Your task to perform on an android device: Check the settings for the Google Chrome app Image 0: 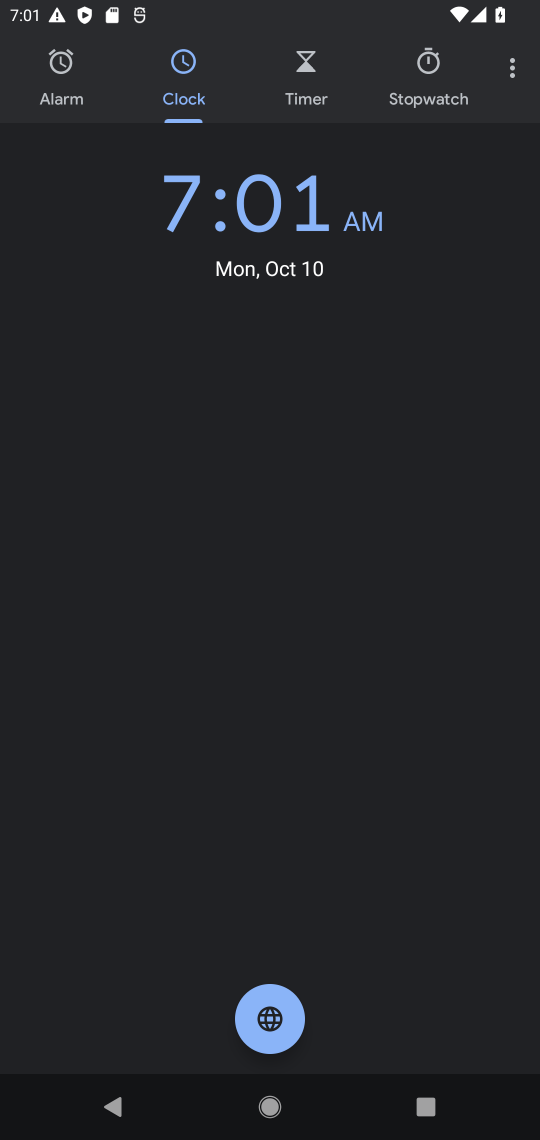
Step 0: press home button
Your task to perform on an android device: Check the settings for the Google Chrome app Image 1: 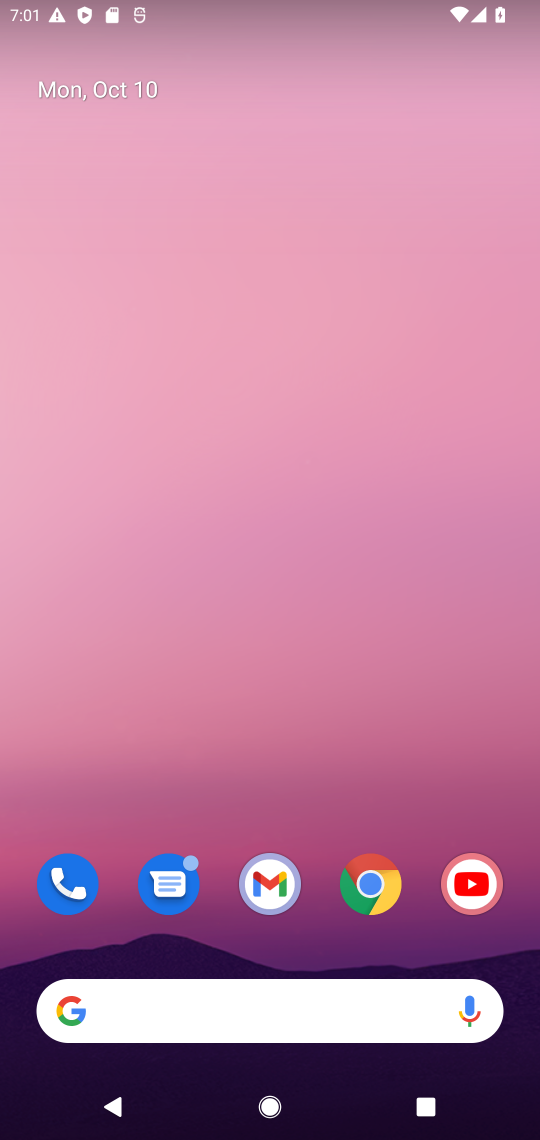
Step 1: click (381, 886)
Your task to perform on an android device: Check the settings for the Google Chrome app Image 2: 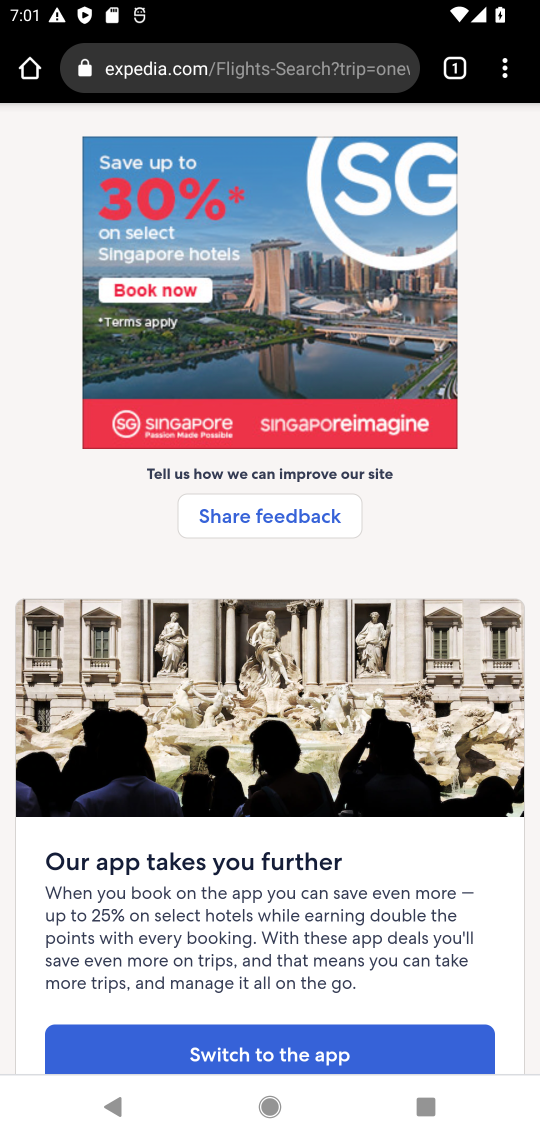
Step 2: drag from (451, 263) to (439, 954)
Your task to perform on an android device: Check the settings for the Google Chrome app Image 3: 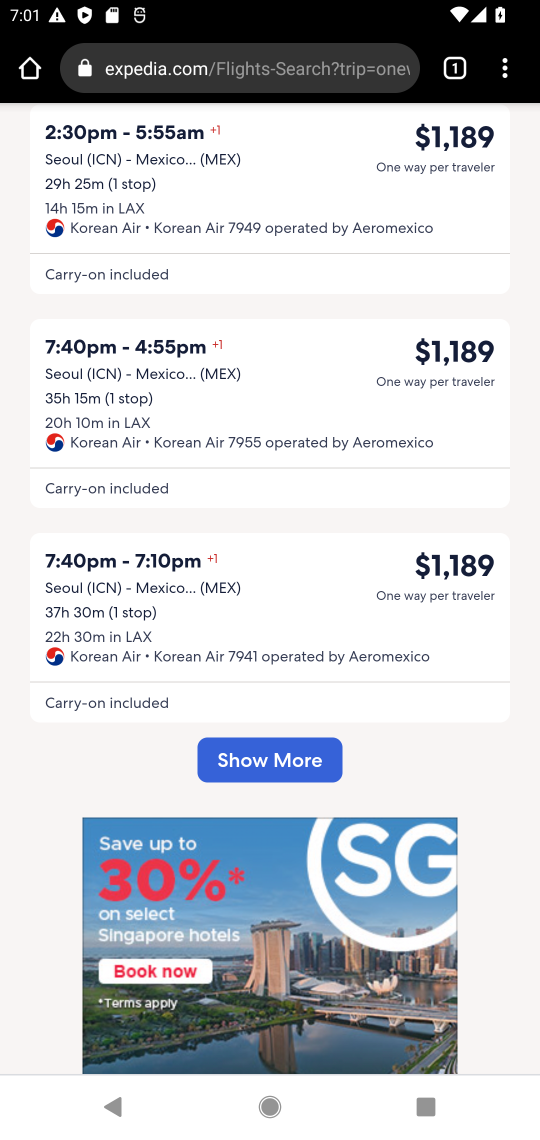
Step 3: click (501, 68)
Your task to perform on an android device: Check the settings for the Google Chrome app Image 4: 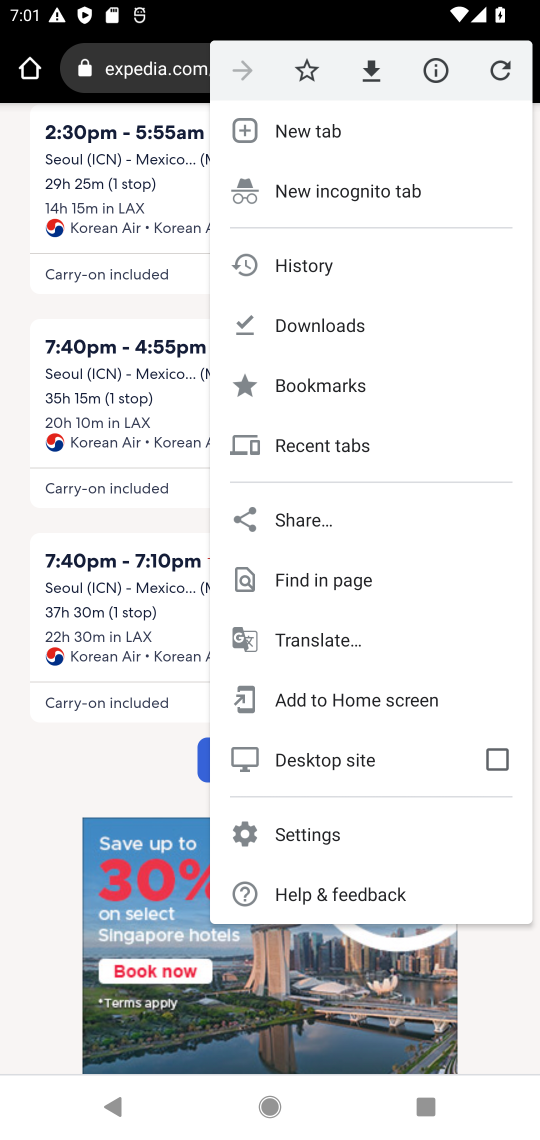
Step 4: click (289, 825)
Your task to perform on an android device: Check the settings for the Google Chrome app Image 5: 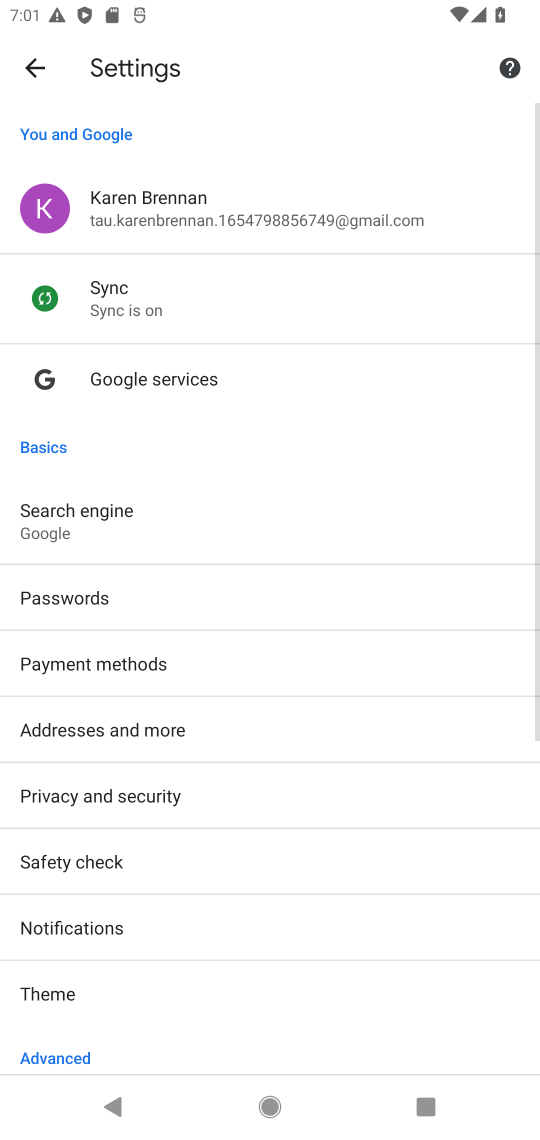
Step 5: drag from (287, 911) to (372, 234)
Your task to perform on an android device: Check the settings for the Google Chrome app Image 6: 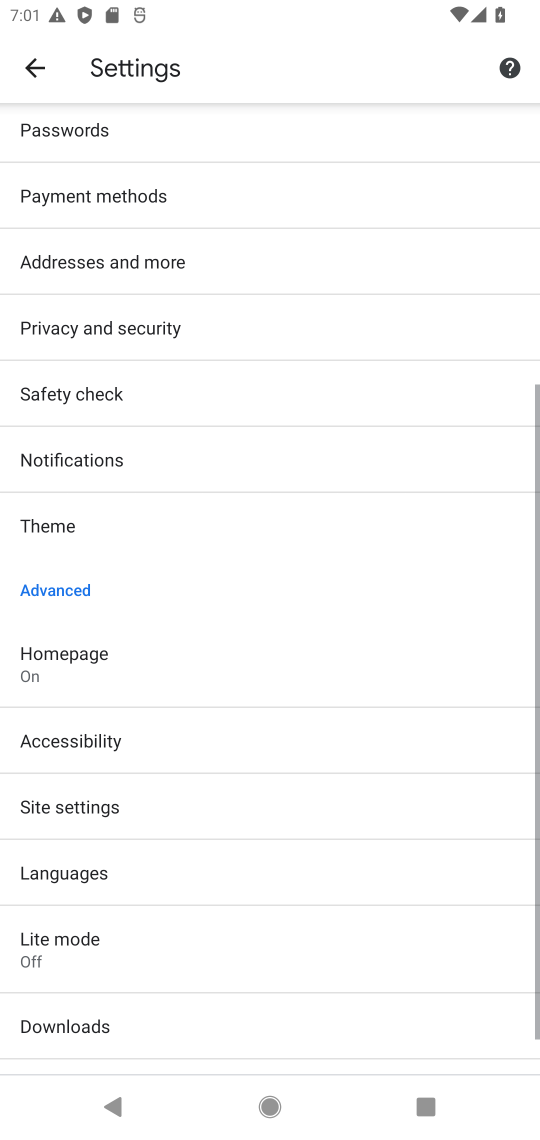
Step 6: drag from (319, 592) to (316, 271)
Your task to perform on an android device: Check the settings for the Google Chrome app Image 7: 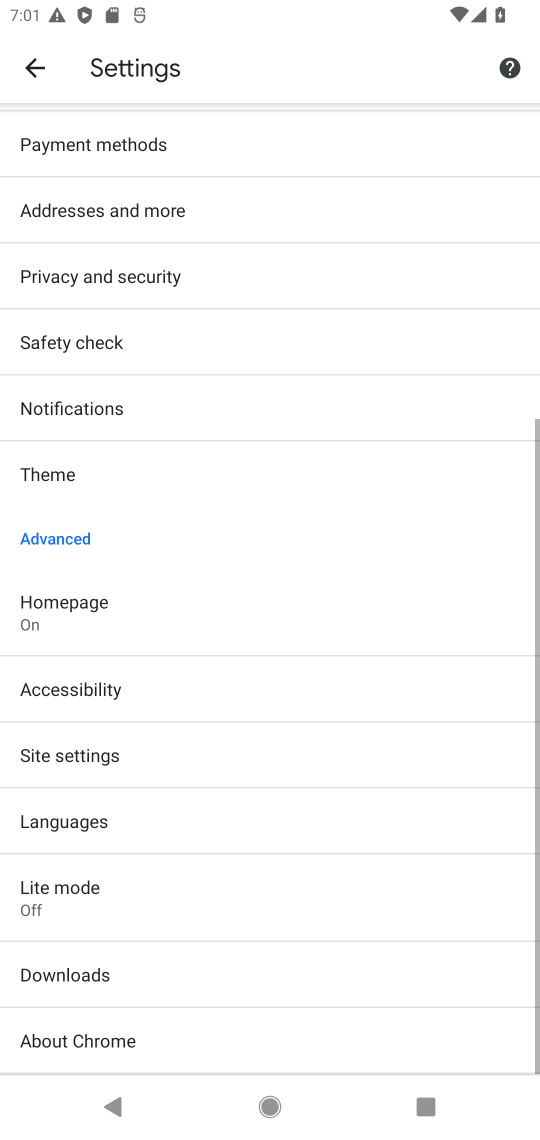
Step 7: drag from (268, 507) to (348, 152)
Your task to perform on an android device: Check the settings for the Google Chrome app Image 8: 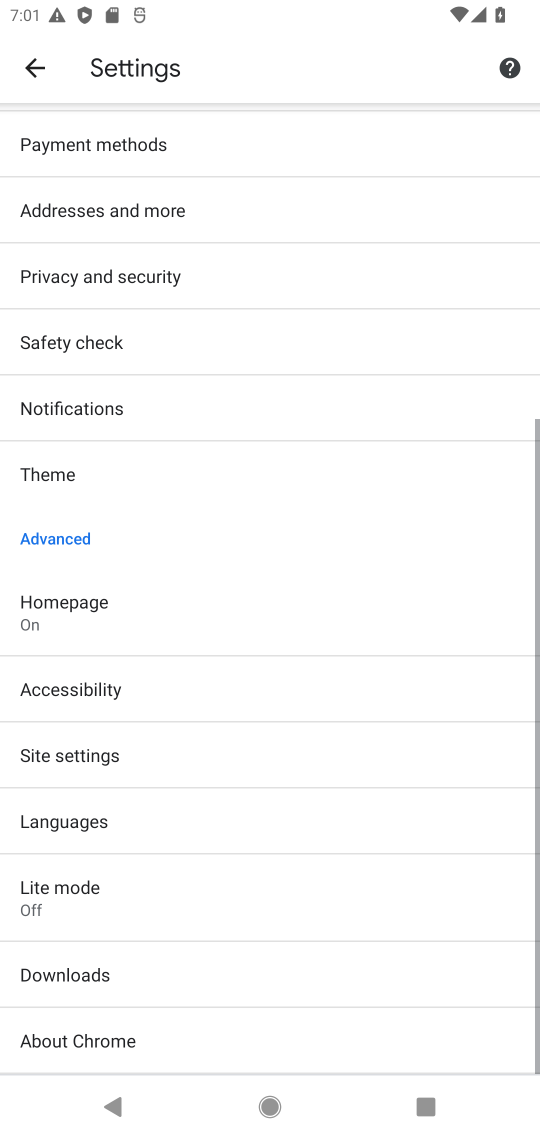
Step 8: drag from (278, 649) to (329, 286)
Your task to perform on an android device: Check the settings for the Google Chrome app Image 9: 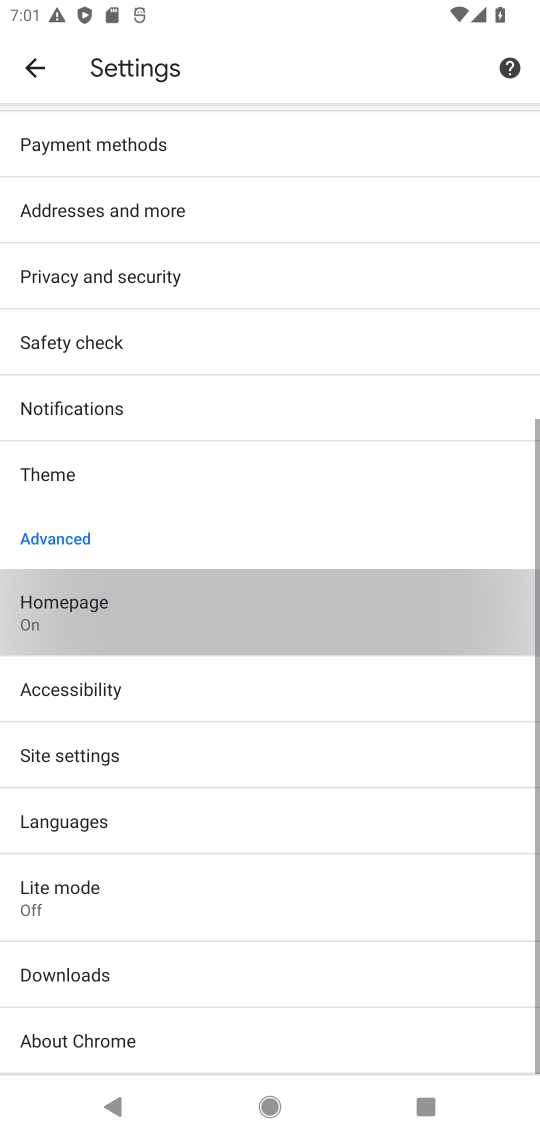
Step 9: drag from (310, 612) to (372, 194)
Your task to perform on an android device: Check the settings for the Google Chrome app Image 10: 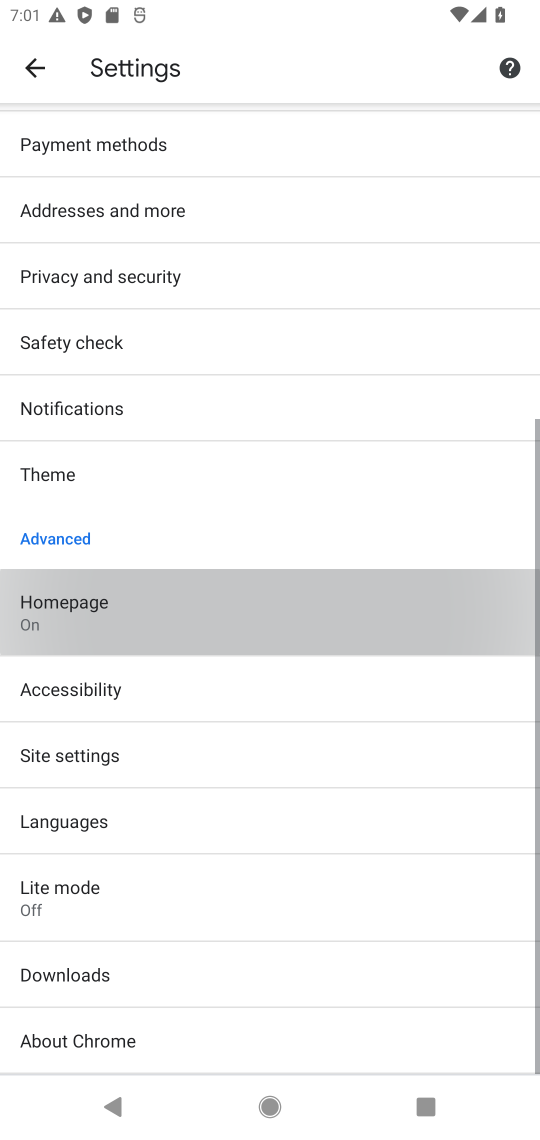
Step 10: drag from (308, 666) to (351, 317)
Your task to perform on an android device: Check the settings for the Google Chrome app Image 11: 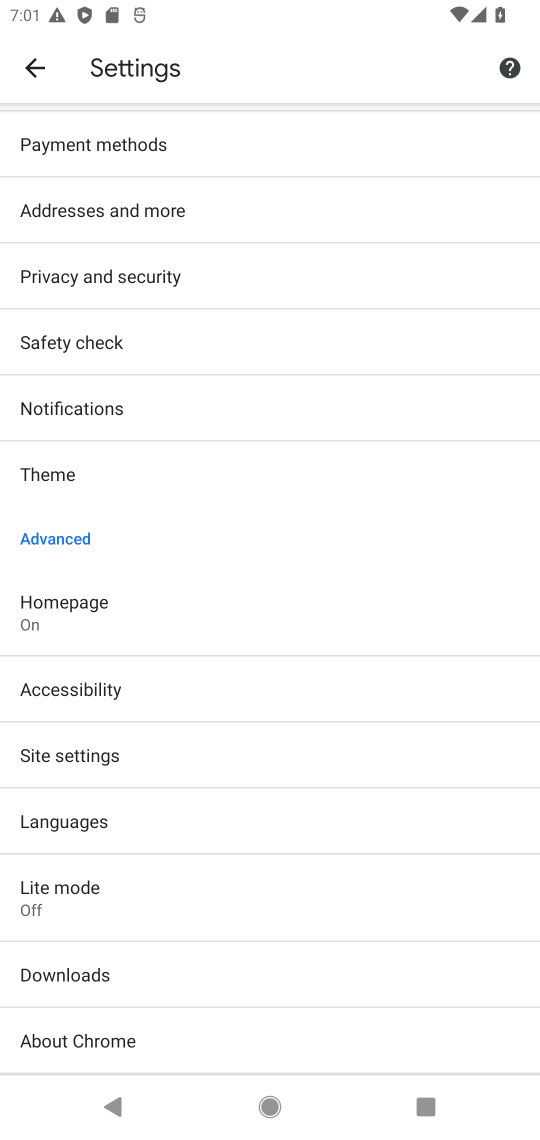
Step 11: click (147, 1031)
Your task to perform on an android device: Check the settings for the Google Chrome app Image 12: 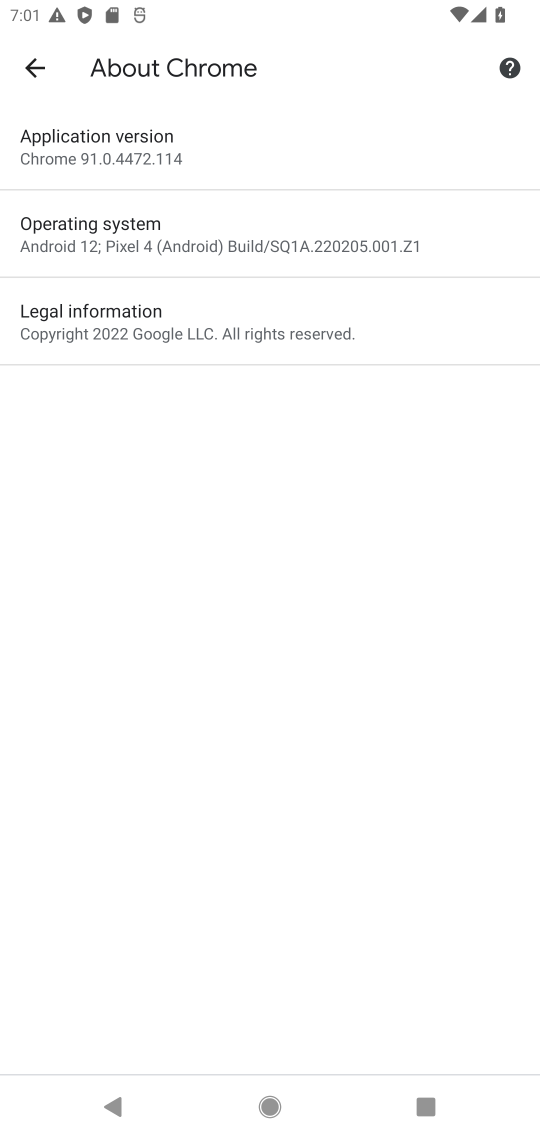
Step 12: click (19, 77)
Your task to perform on an android device: Check the settings for the Google Chrome app Image 13: 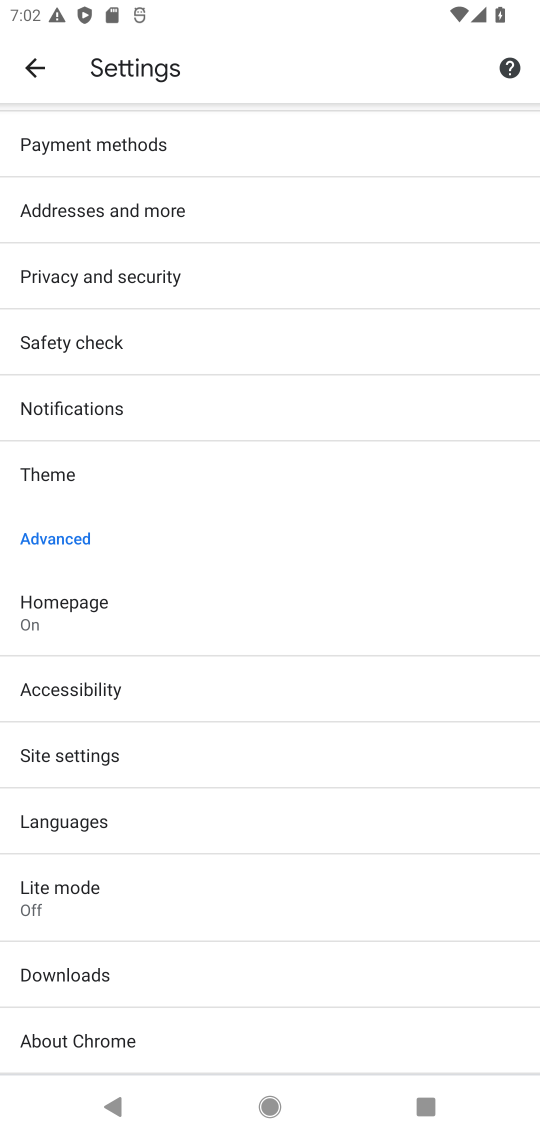
Step 13: click (106, 958)
Your task to perform on an android device: Check the settings for the Google Chrome app Image 14: 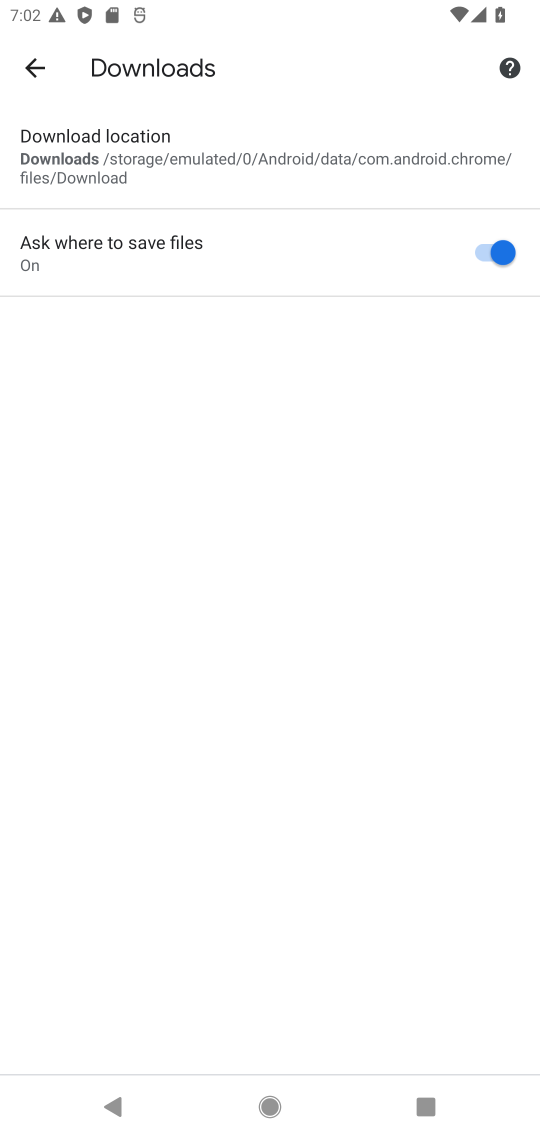
Step 14: click (23, 72)
Your task to perform on an android device: Check the settings for the Google Chrome app Image 15: 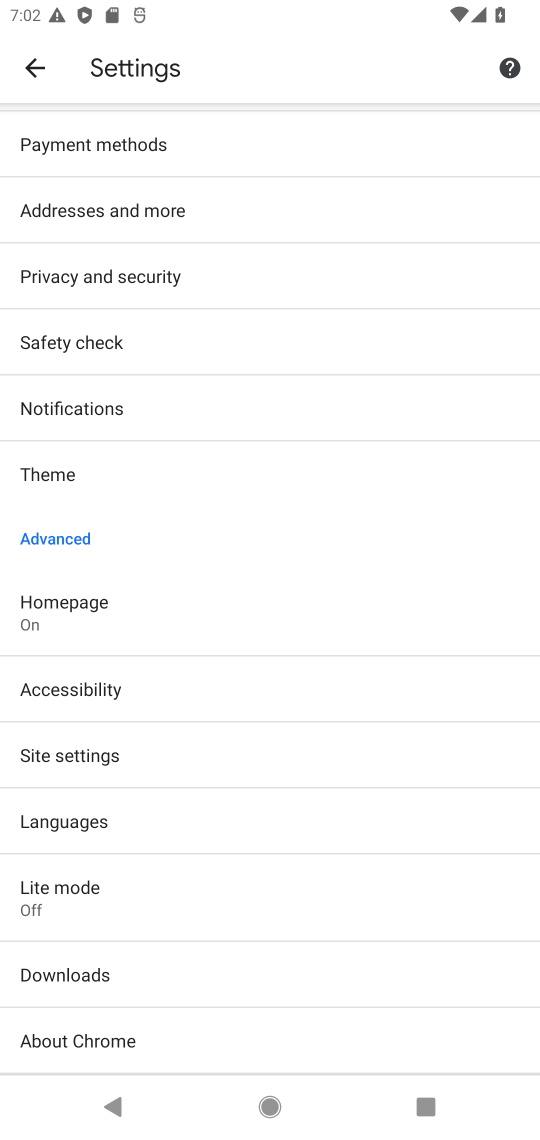
Step 15: click (68, 160)
Your task to perform on an android device: Check the settings for the Google Chrome app Image 16: 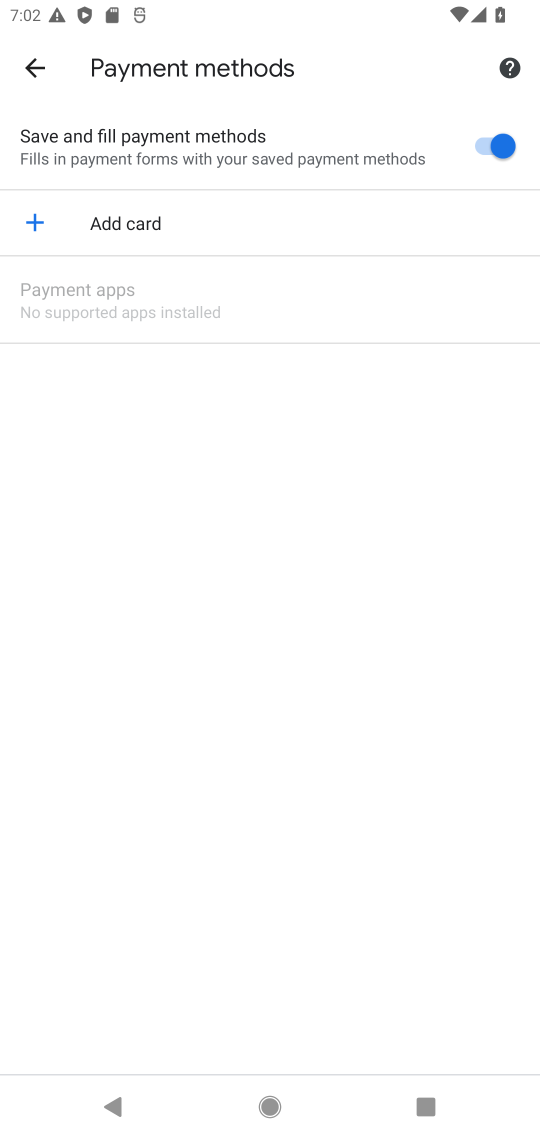
Step 16: click (29, 69)
Your task to perform on an android device: Check the settings for the Google Chrome app Image 17: 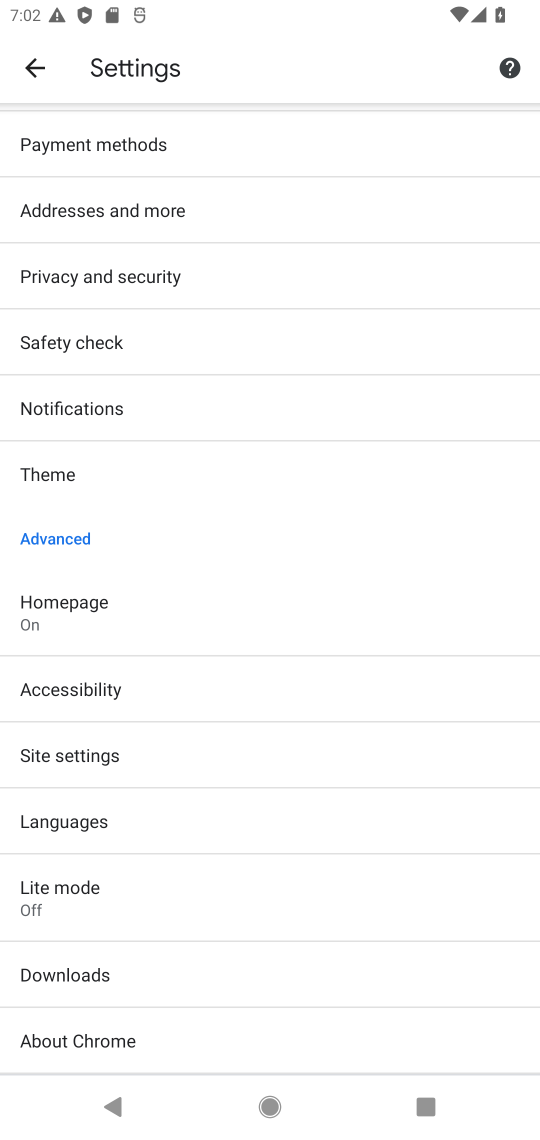
Step 17: click (124, 267)
Your task to perform on an android device: Check the settings for the Google Chrome app Image 18: 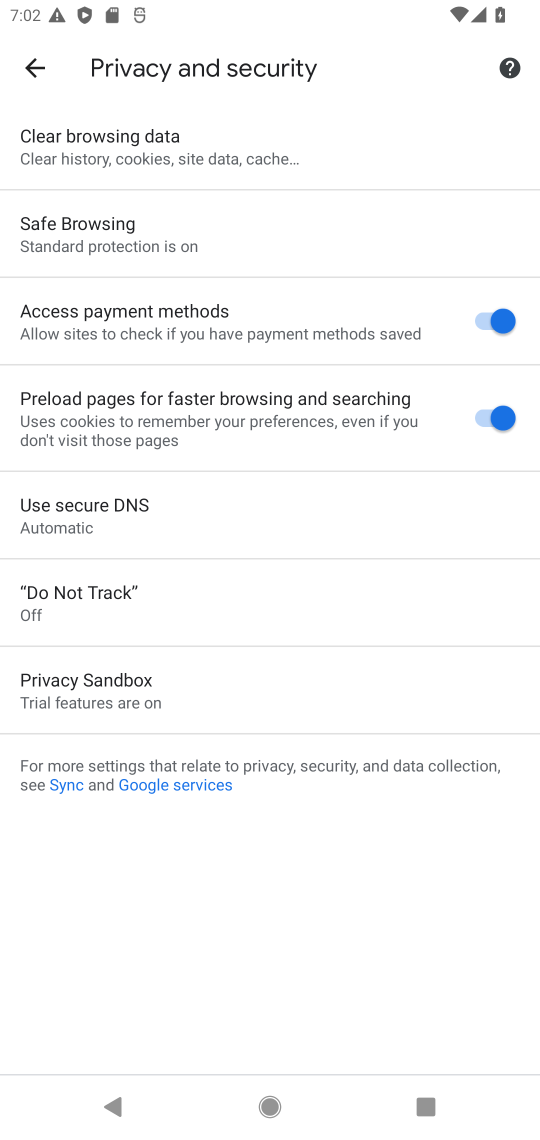
Step 18: click (17, 66)
Your task to perform on an android device: Check the settings for the Google Chrome app Image 19: 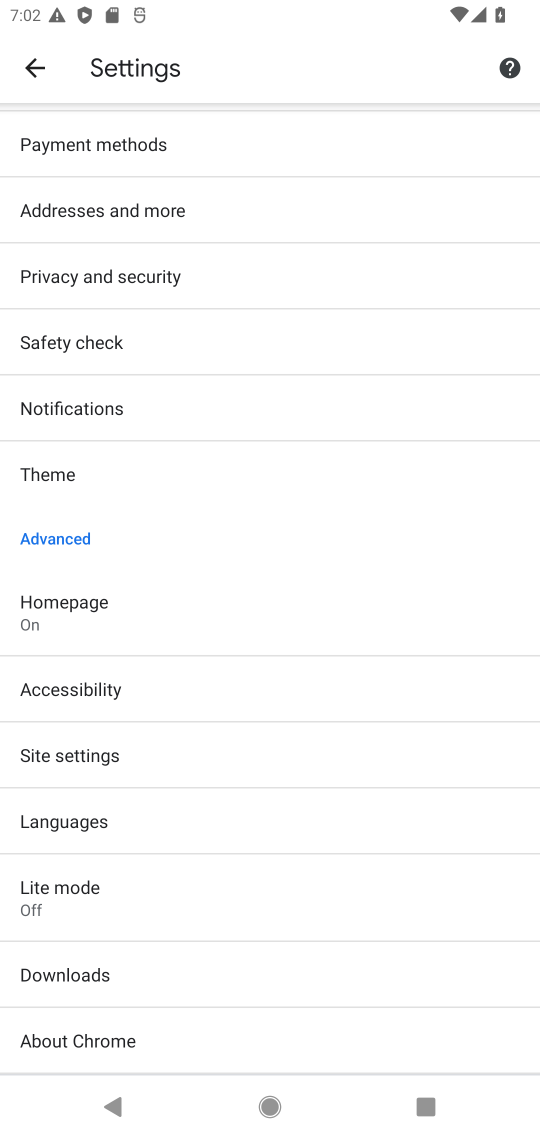
Step 19: click (84, 762)
Your task to perform on an android device: Check the settings for the Google Chrome app Image 20: 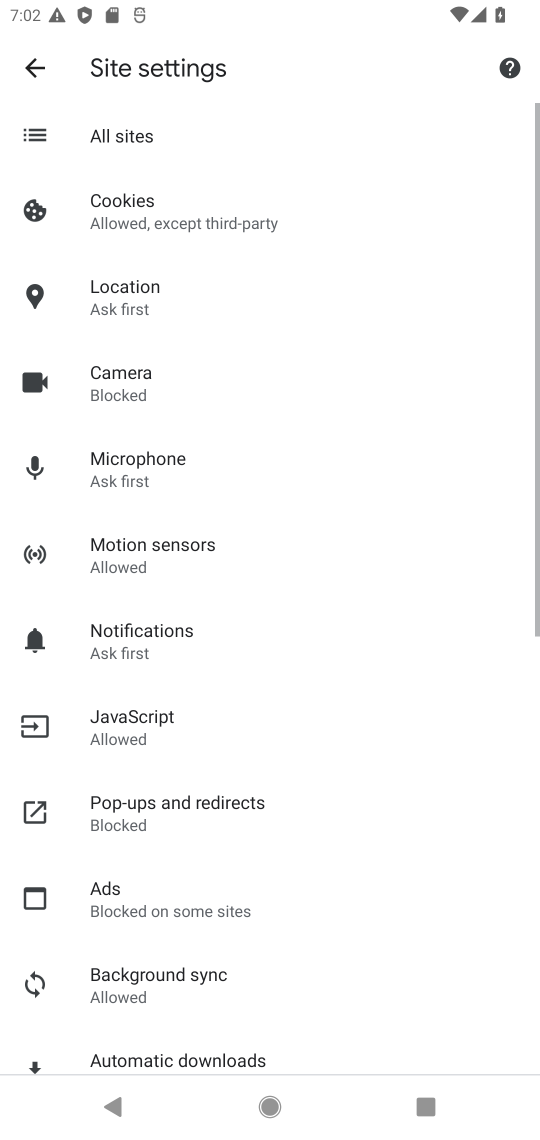
Step 20: drag from (263, 902) to (268, 402)
Your task to perform on an android device: Check the settings for the Google Chrome app Image 21: 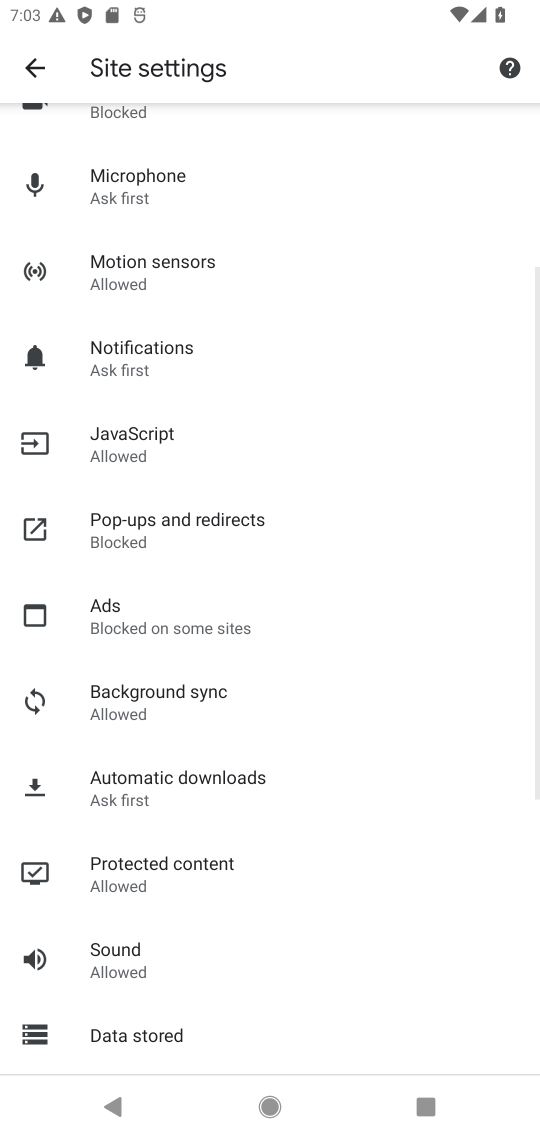
Step 21: drag from (351, 873) to (286, 362)
Your task to perform on an android device: Check the settings for the Google Chrome app Image 22: 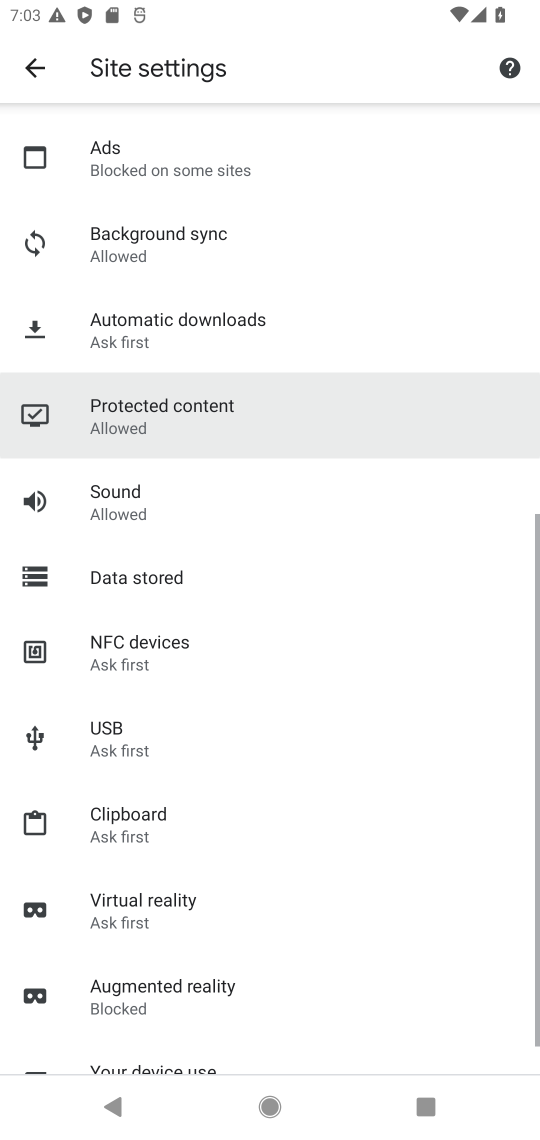
Step 22: drag from (297, 874) to (271, 556)
Your task to perform on an android device: Check the settings for the Google Chrome app Image 23: 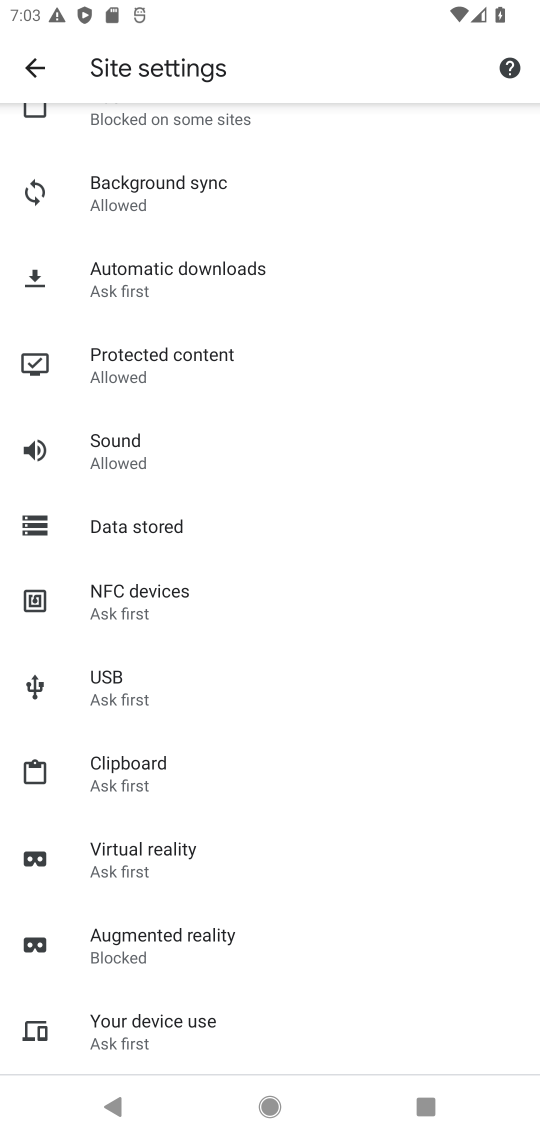
Step 23: click (255, 609)
Your task to perform on an android device: Check the settings for the Google Chrome app Image 24: 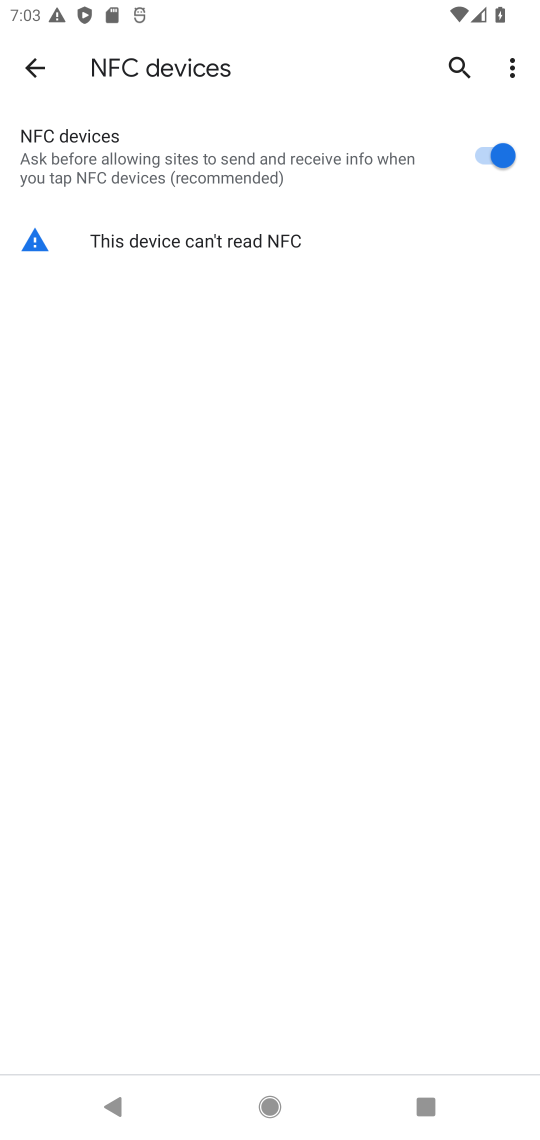
Step 24: click (23, 75)
Your task to perform on an android device: Check the settings for the Google Chrome app Image 25: 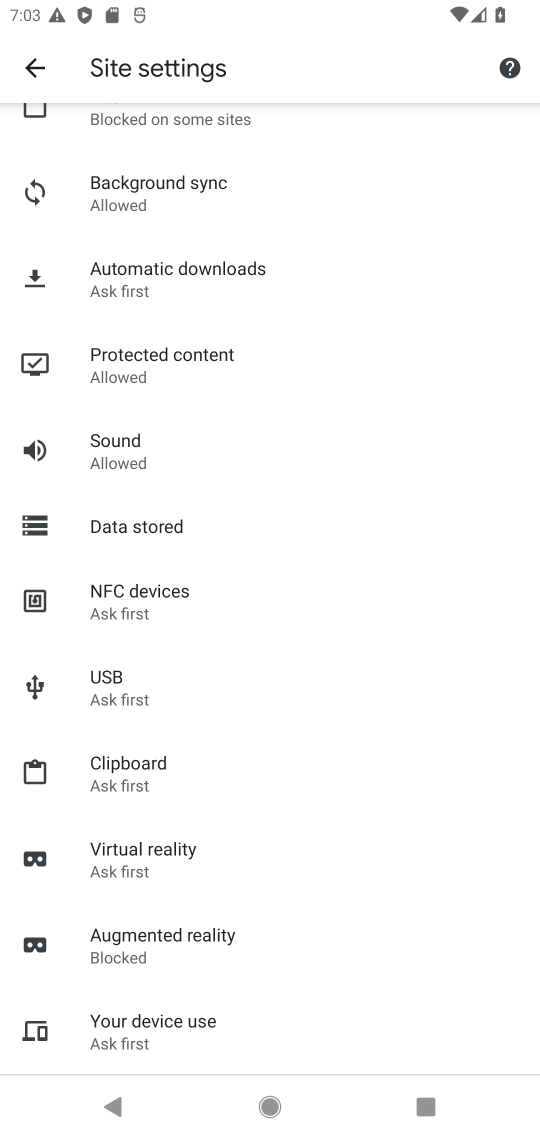
Step 25: click (141, 581)
Your task to perform on an android device: Check the settings for the Google Chrome app Image 26: 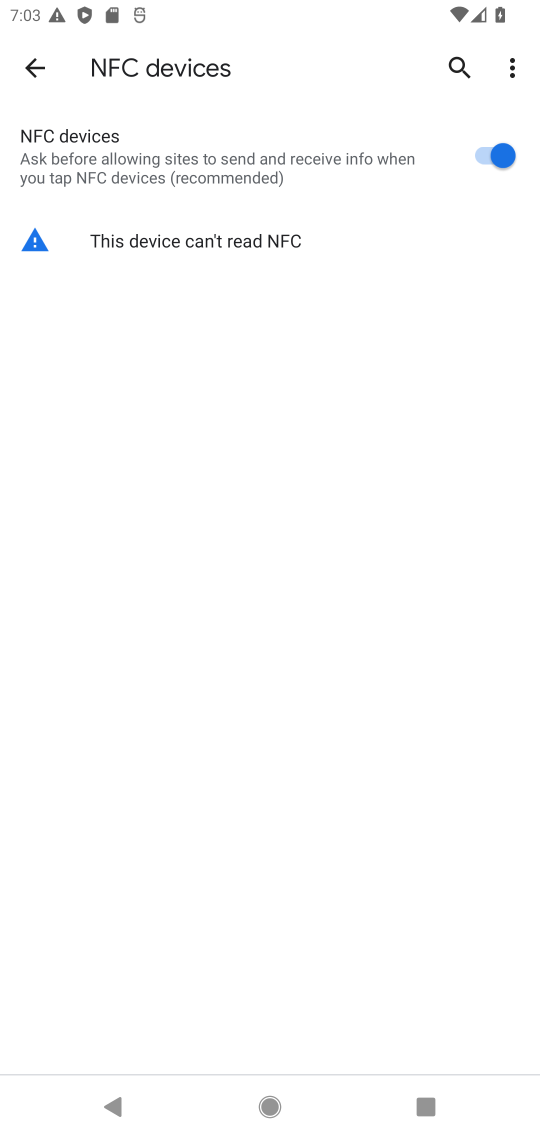
Step 26: click (31, 67)
Your task to perform on an android device: Check the settings for the Google Chrome app Image 27: 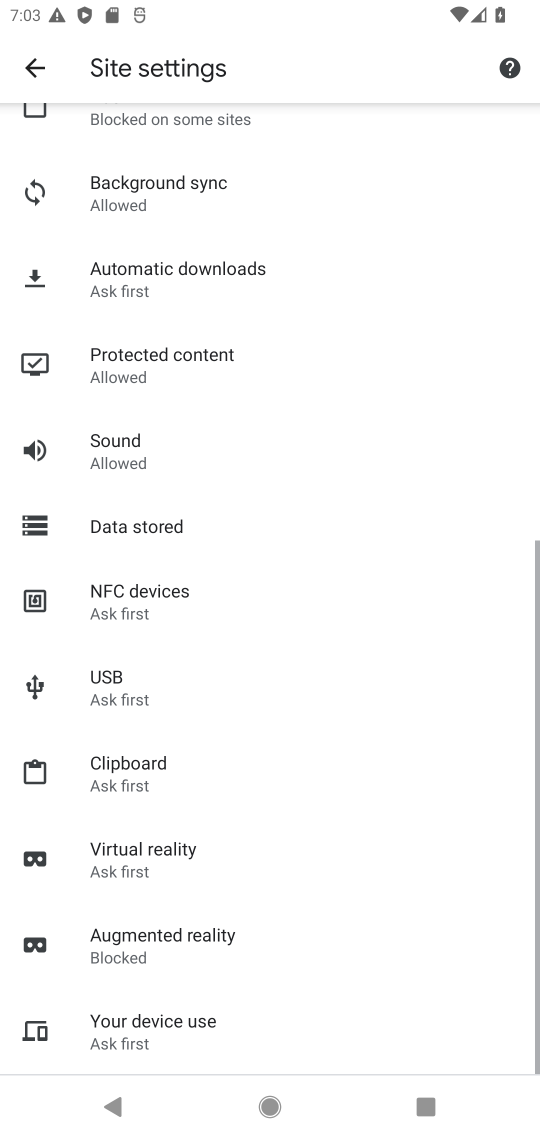
Step 27: drag from (292, 743) to (294, 355)
Your task to perform on an android device: Check the settings for the Google Chrome app Image 28: 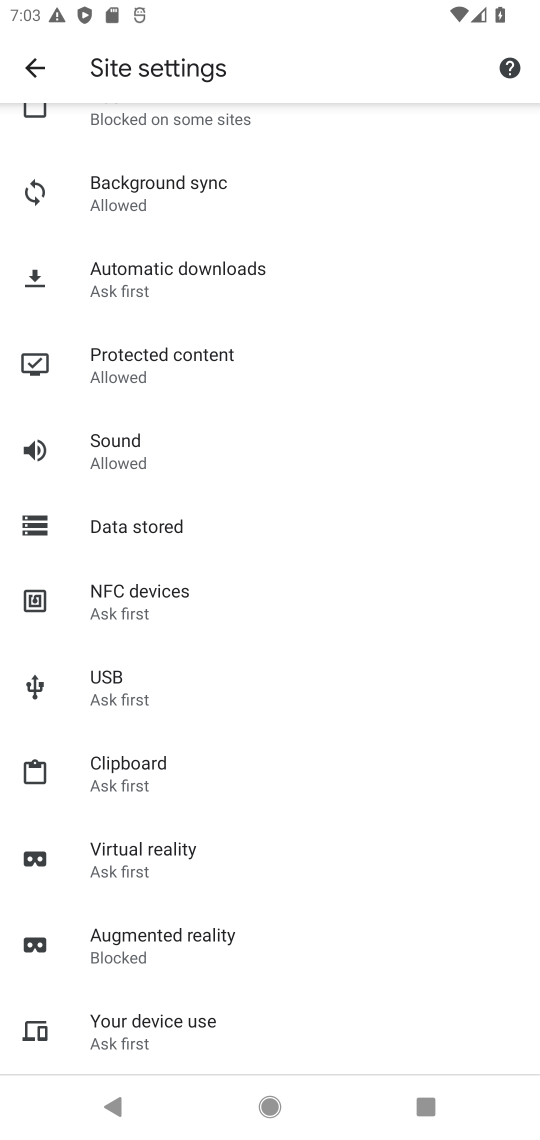
Step 28: click (153, 493)
Your task to perform on an android device: Check the settings for the Google Chrome app Image 29: 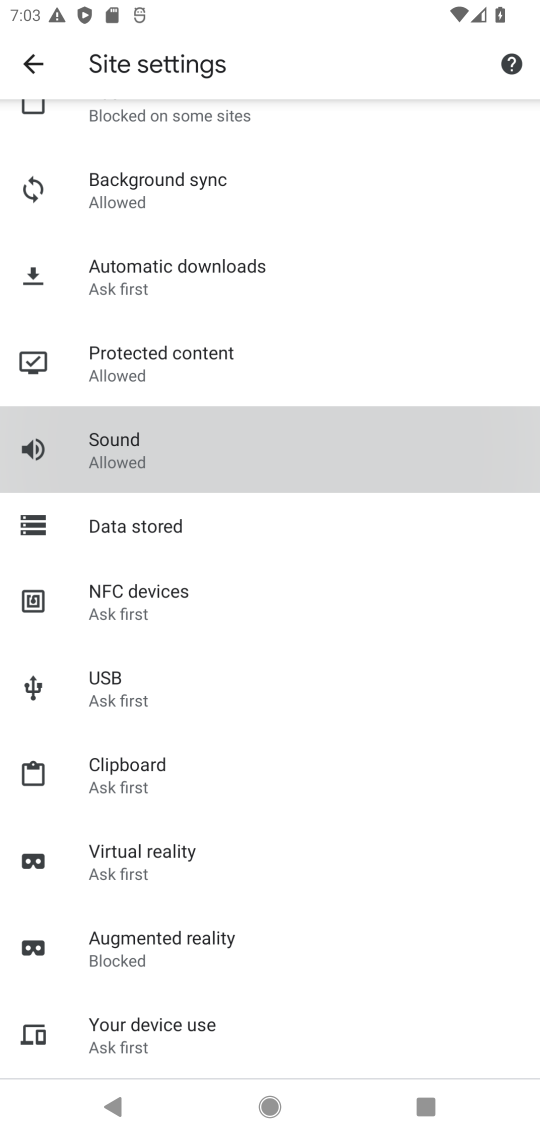
Step 29: click (136, 514)
Your task to perform on an android device: Check the settings for the Google Chrome app Image 30: 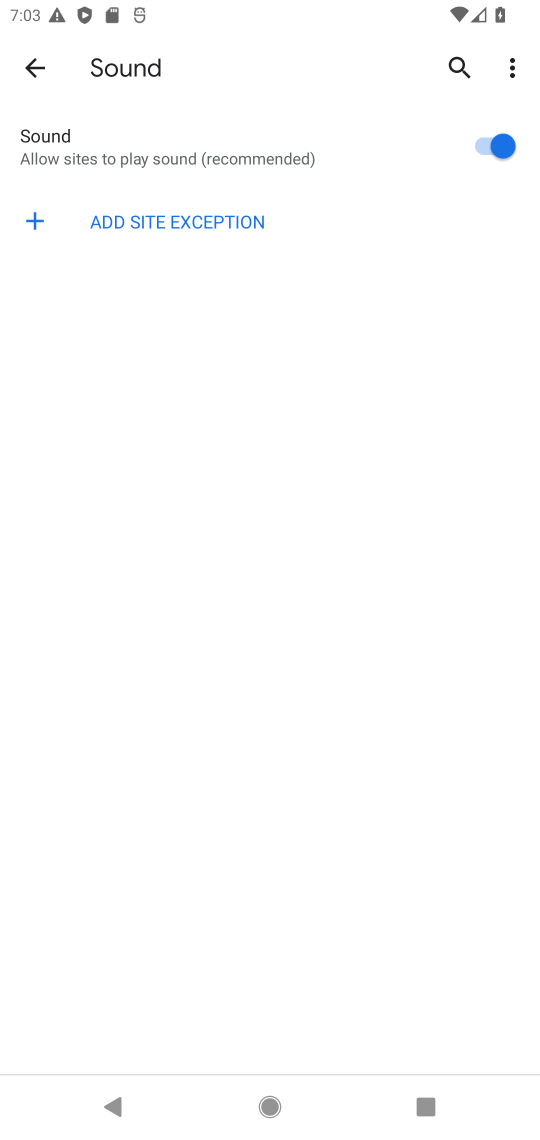
Step 30: click (40, 72)
Your task to perform on an android device: Check the settings for the Google Chrome app Image 31: 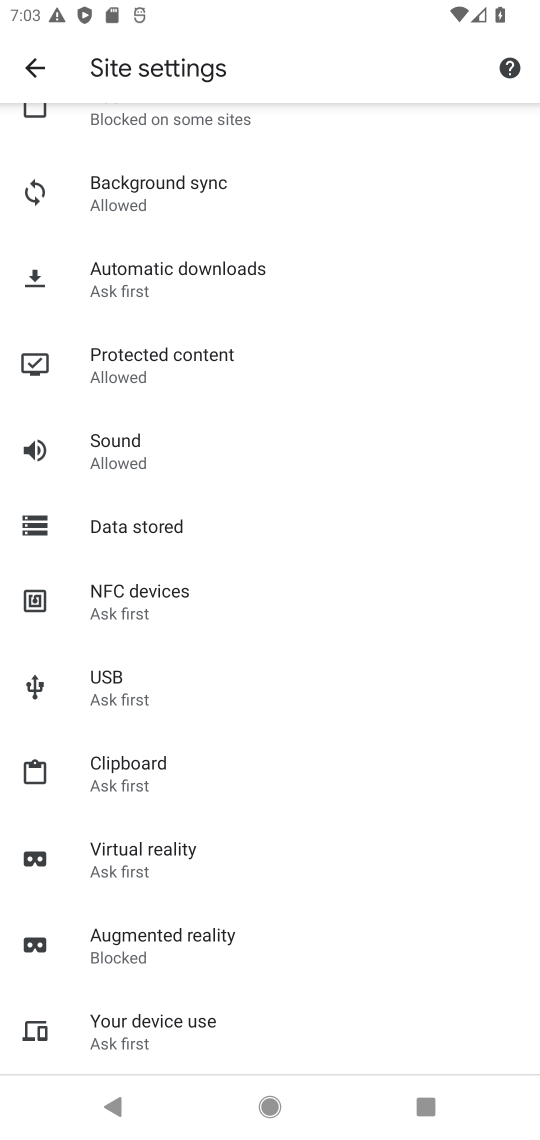
Step 31: click (125, 762)
Your task to perform on an android device: Check the settings for the Google Chrome app Image 32: 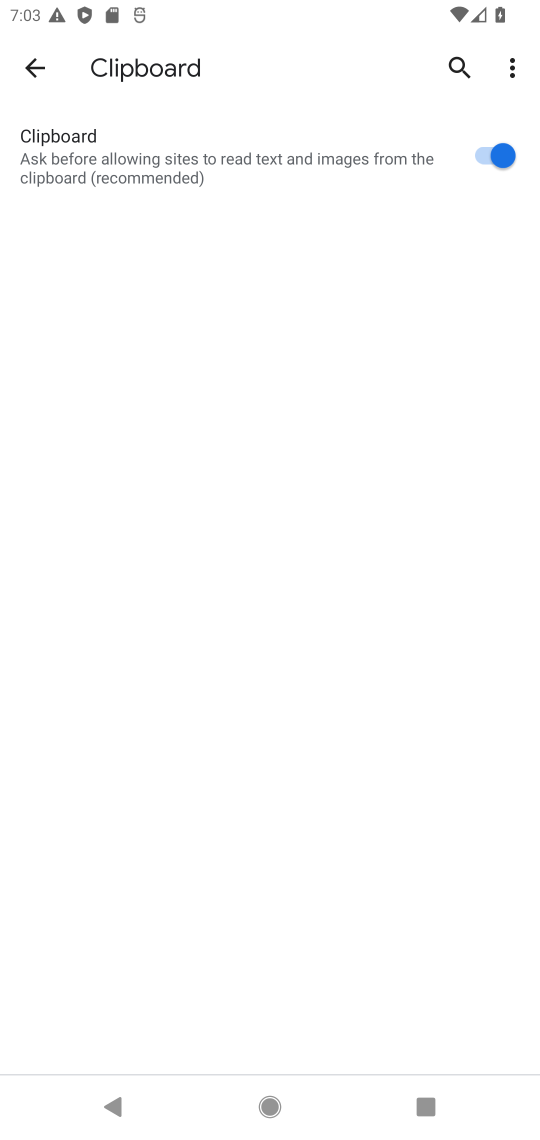
Step 32: drag from (156, 734) to (222, 241)
Your task to perform on an android device: Check the settings for the Google Chrome app Image 33: 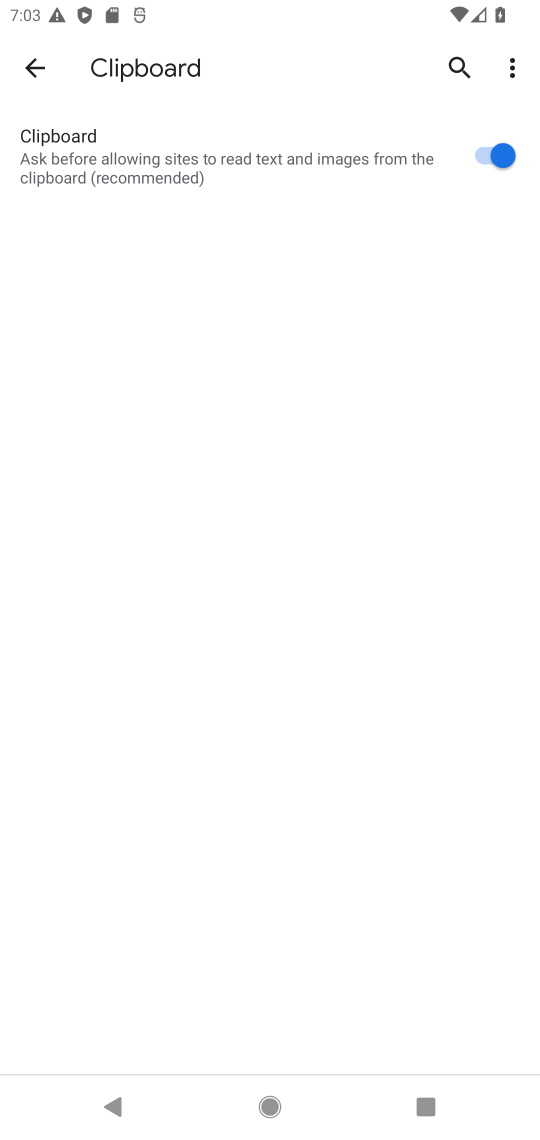
Step 33: click (36, 67)
Your task to perform on an android device: Check the settings for the Google Chrome app Image 34: 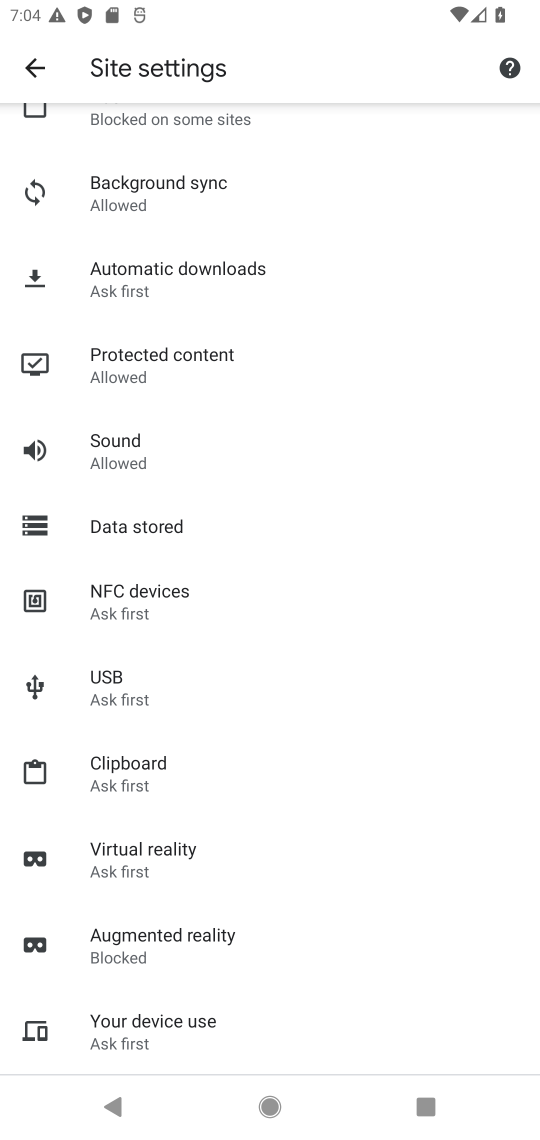
Step 34: click (163, 751)
Your task to perform on an android device: Check the settings for the Google Chrome app Image 35: 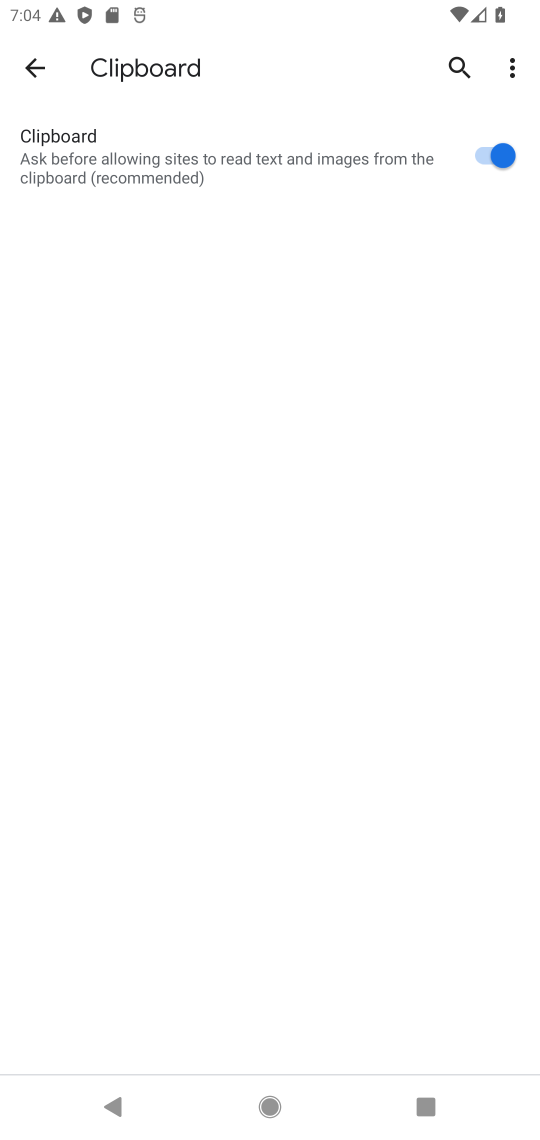
Step 35: click (27, 93)
Your task to perform on an android device: Check the settings for the Google Chrome app Image 36: 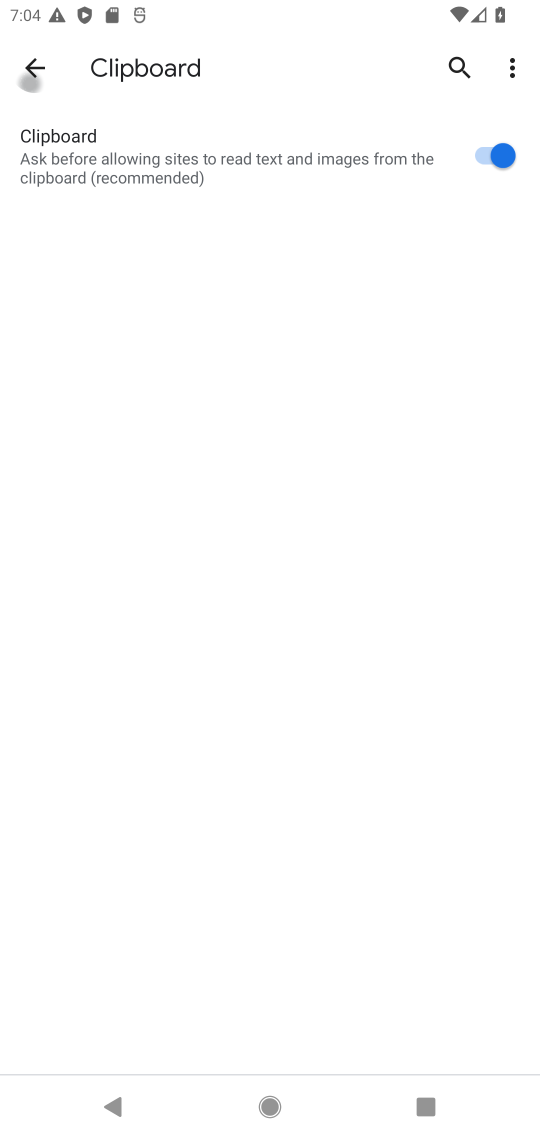
Step 36: click (32, 79)
Your task to perform on an android device: Check the settings for the Google Chrome app Image 37: 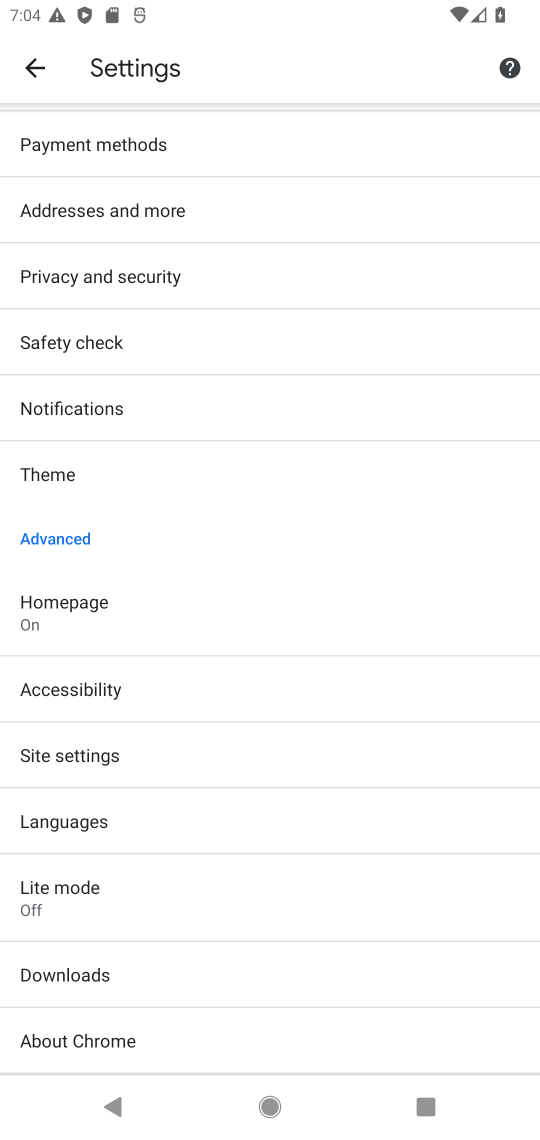
Step 37: click (32, 79)
Your task to perform on an android device: Check the settings for the Google Chrome app Image 38: 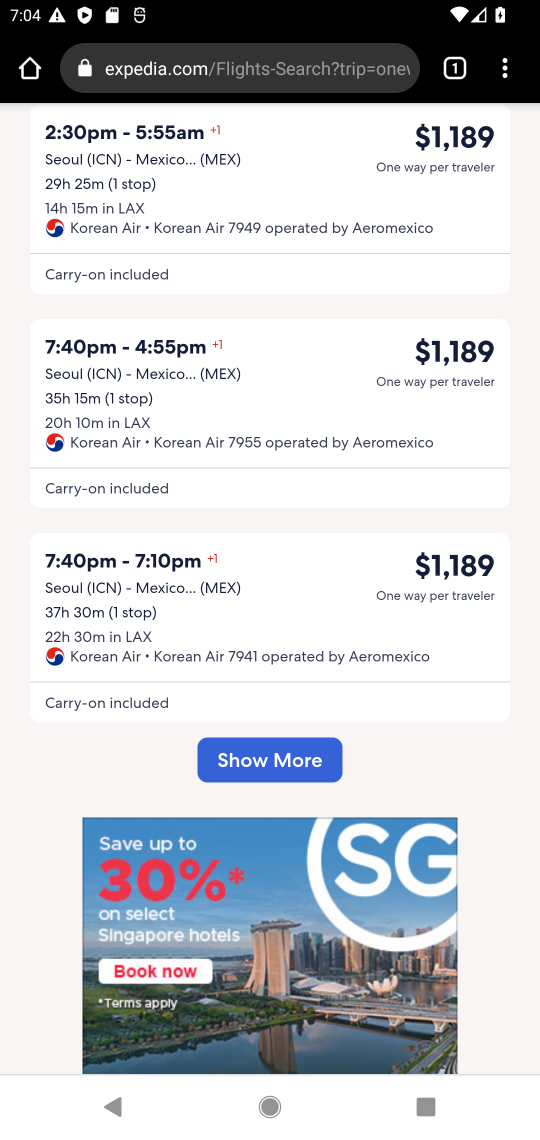
Step 38: task complete